Your task to perform on an android device: Open eBay Image 0: 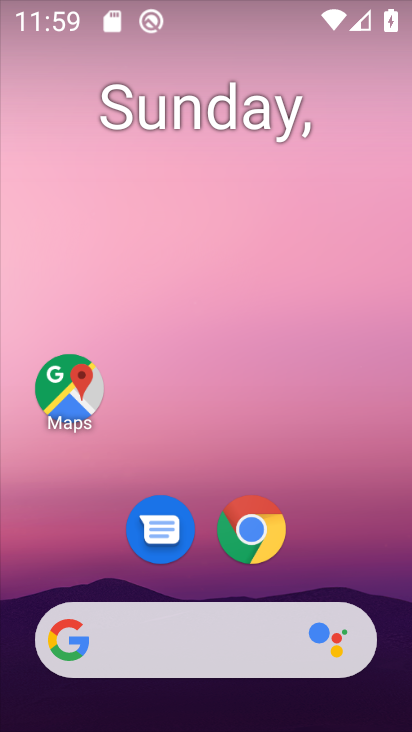
Step 0: click (249, 543)
Your task to perform on an android device: Open eBay Image 1: 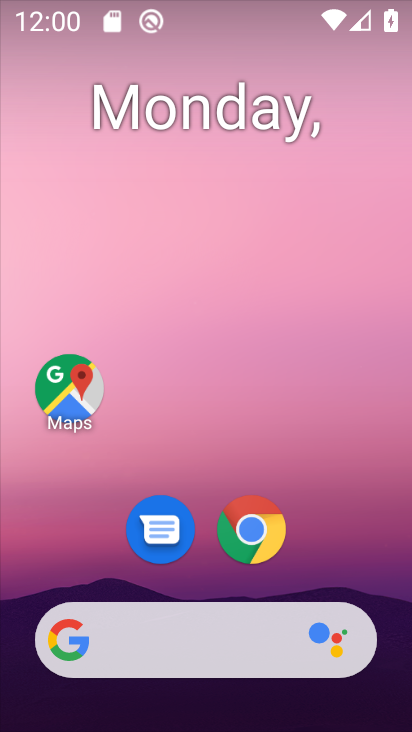
Step 1: click (255, 539)
Your task to perform on an android device: Open eBay Image 2: 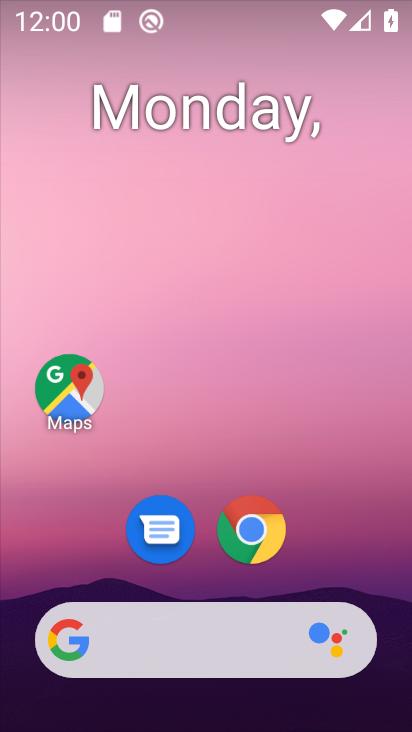
Step 2: click (243, 538)
Your task to perform on an android device: Open eBay Image 3: 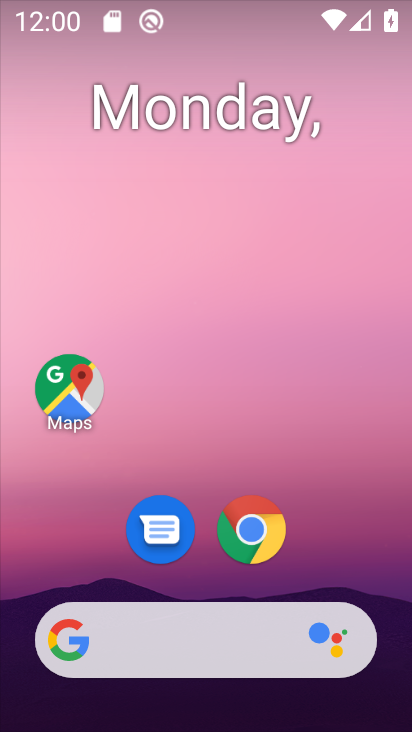
Step 3: click (243, 538)
Your task to perform on an android device: Open eBay Image 4: 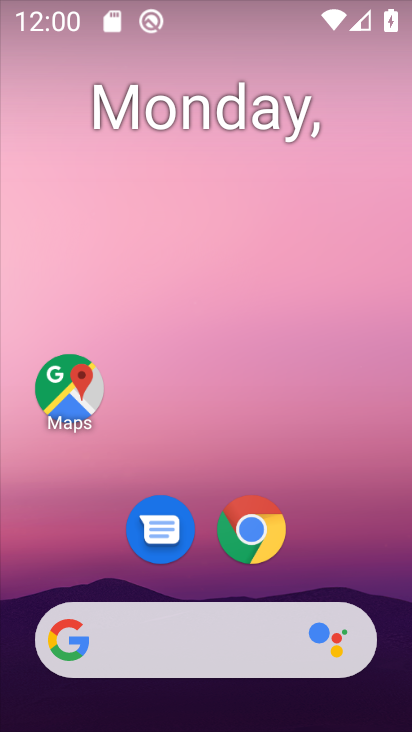
Step 4: click (243, 538)
Your task to perform on an android device: Open eBay Image 5: 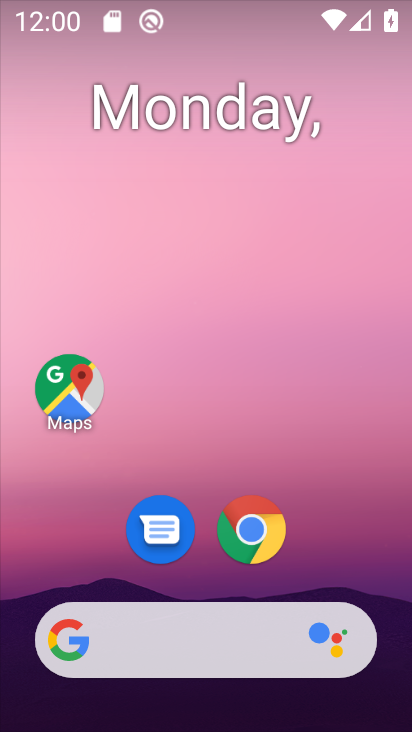
Step 5: click (243, 538)
Your task to perform on an android device: Open eBay Image 6: 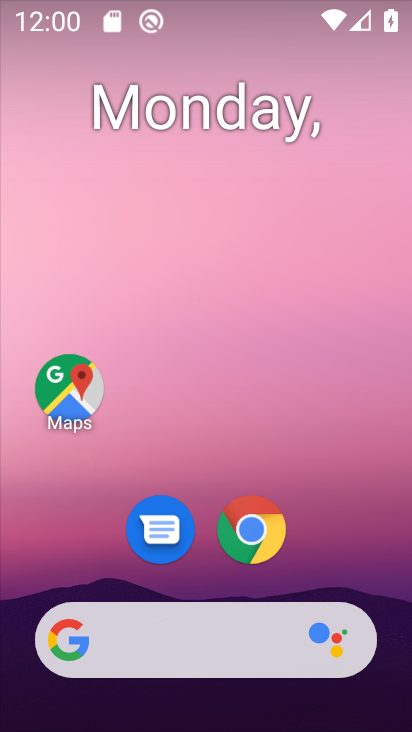
Step 6: click (243, 538)
Your task to perform on an android device: Open eBay Image 7: 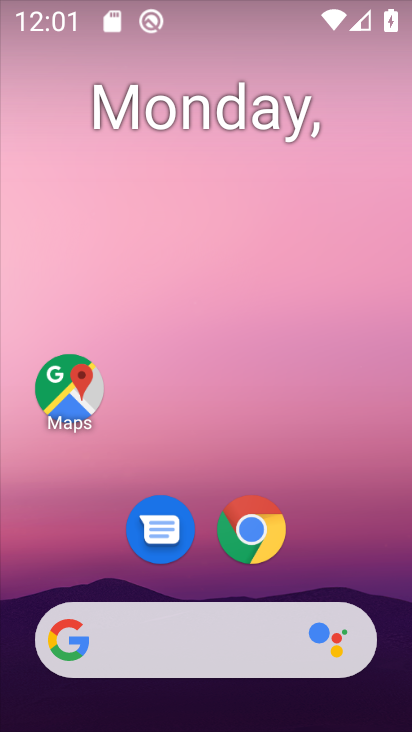
Step 7: click (251, 554)
Your task to perform on an android device: Open eBay Image 8: 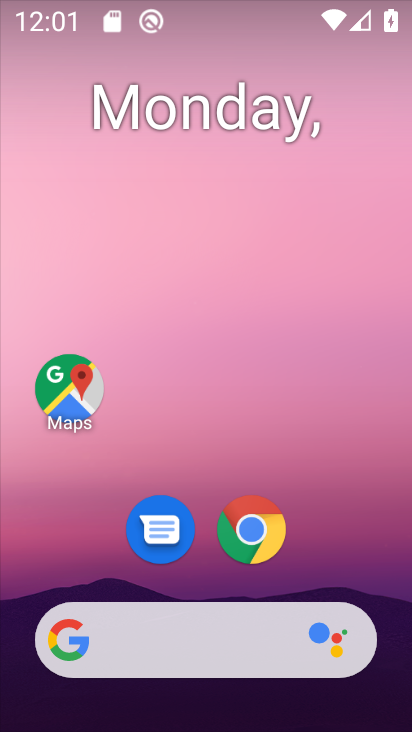
Step 8: click (253, 544)
Your task to perform on an android device: Open eBay Image 9: 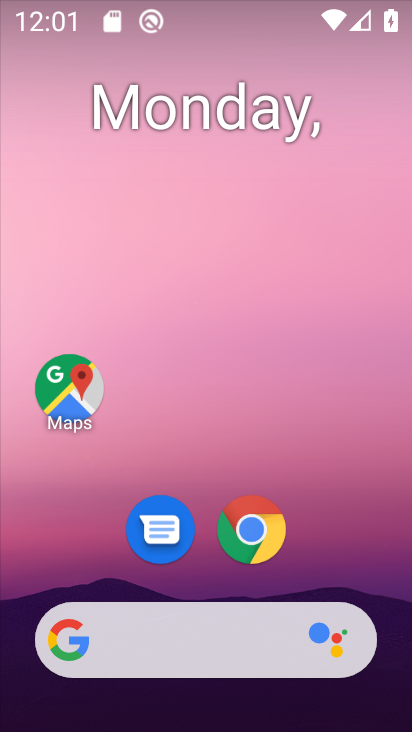
Step 9: drag from (212, 635) to (182, 38)
Your task to perform on an android device: Open eBay Image 10: 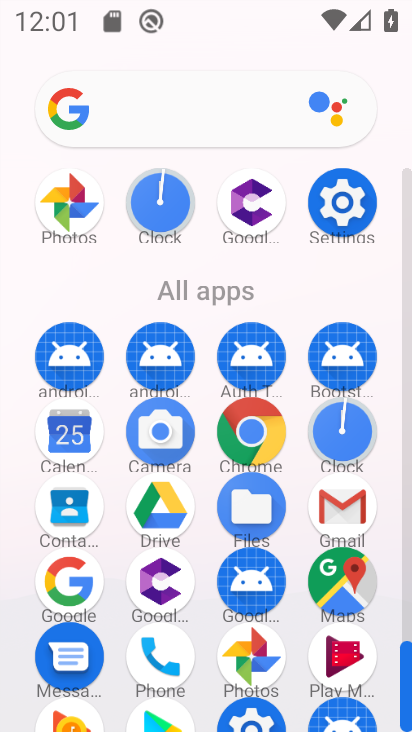
Step 10: click (249, 427)
Your task to perform on an android device: Open eBay Image 11: 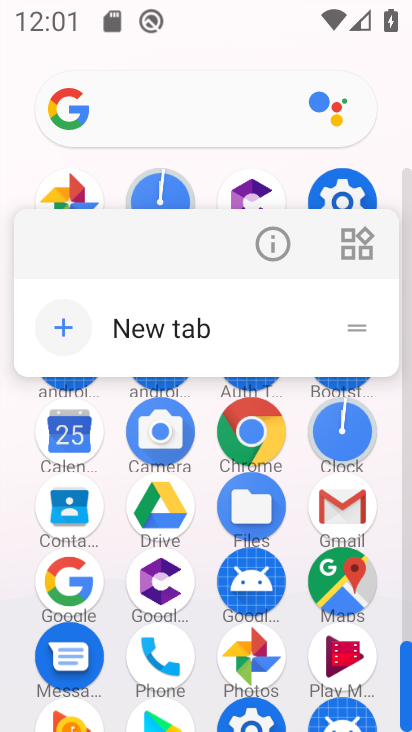
Step 11: click (249, 427)
Your task to perform on an android device: Open eBay Image 12: 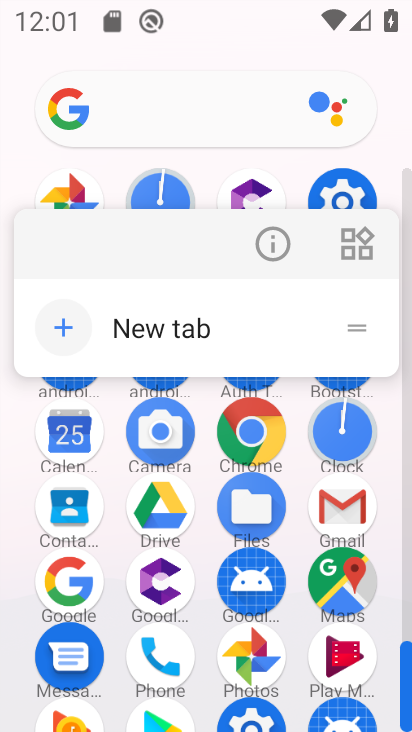
Step 12: click (251, 446)
Your task to perform on an android device: Open eBay Image 13: 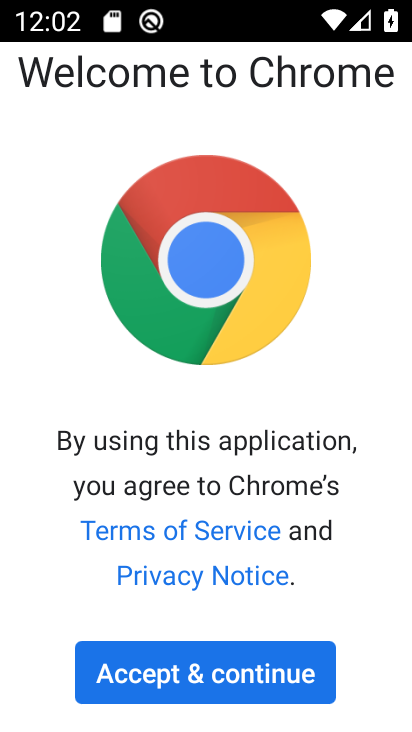
Step 13: click (176, 663)
Your task to perform on an android device: Open eBay Image 14: 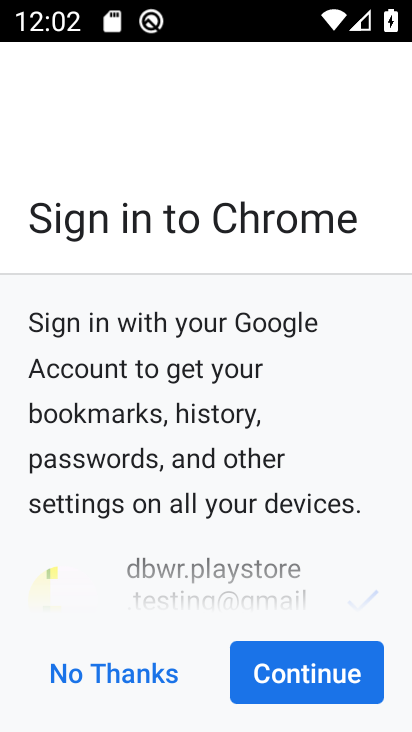
Step 14: click (328, 689)
Your task to perform on an android device: Open eBay Image 15: 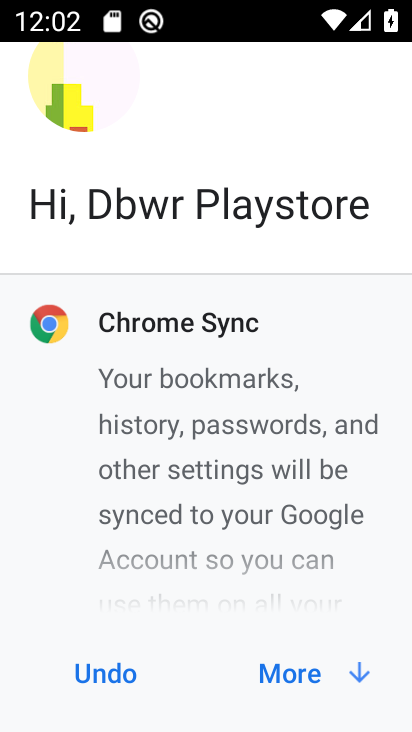
Step 15: click (278, 671)
Your task to perform on an android device: Open eBay Image 16: 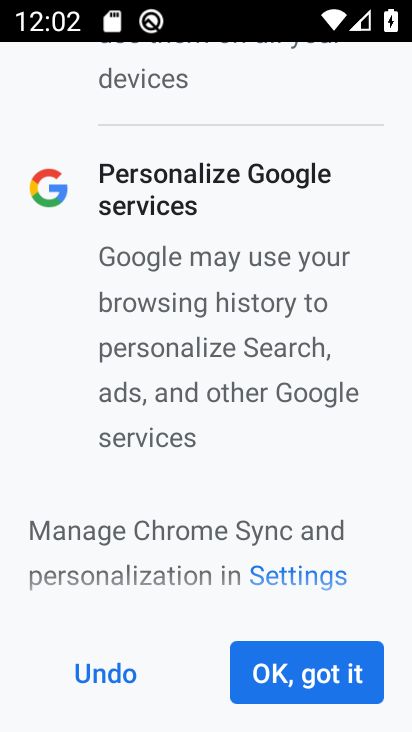
Step 16: click (278, 671)
Your task to perform on an android device: Open eBay Image 17: 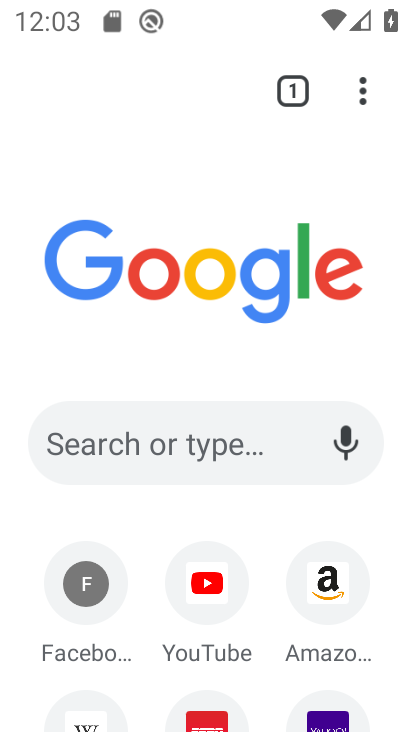
Step 17: click (227, 447)
Your task to perform on an android device: Open eBay Image 18: 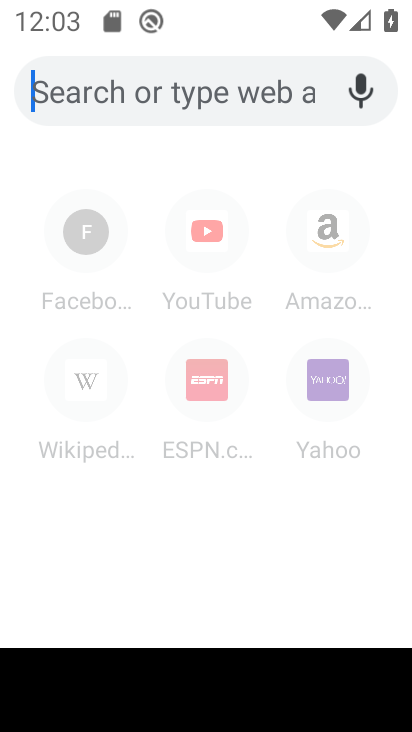
Step 18: type "ebay"
Your task to perform on an android device: Open eBay Image 19: 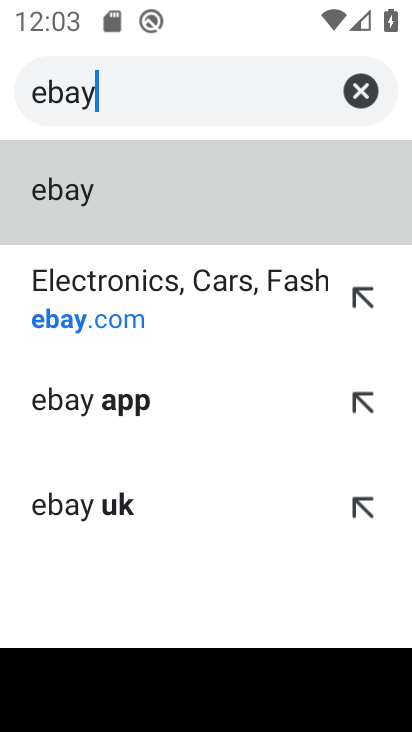
Step 19: click (142, 306)
Your task to perform on an android device: Open eBay Image 20: 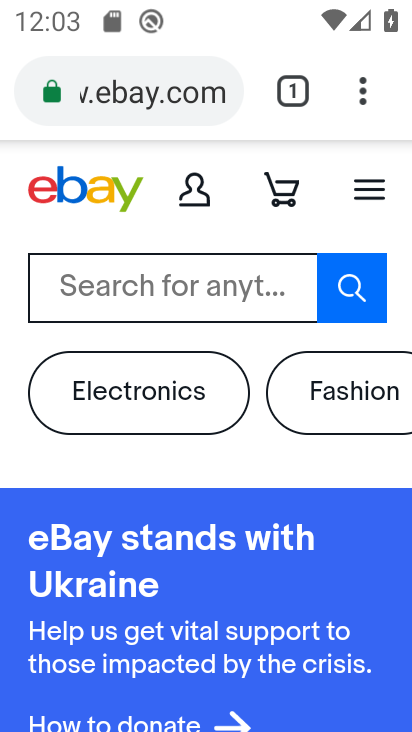
Step 20: task complete